Your task to perform on an android device: Go to eBay Image 0: 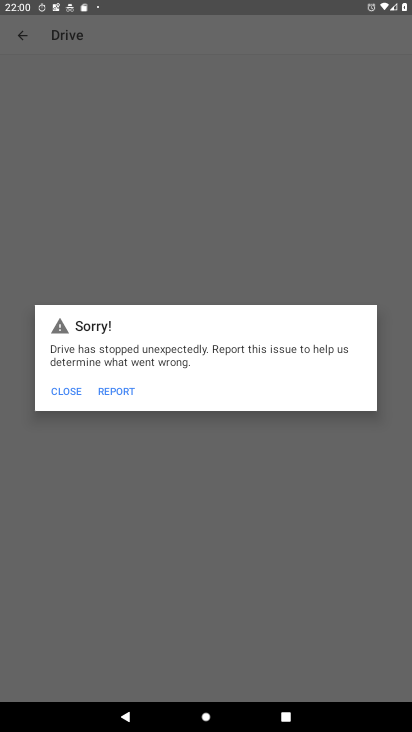
Step 0: click (73, 389)
Your task to perform on an android device: Go to eBay Image 1: 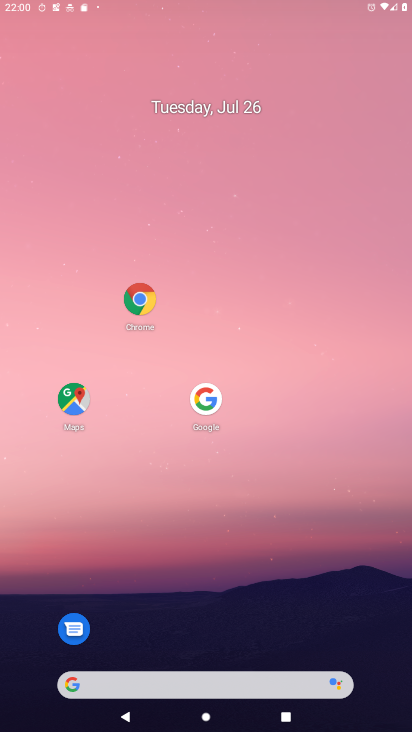
Step 1: drag from (221, 116) to (211, 42)
Your task to perform on an android device: Go to eBay Image 2: 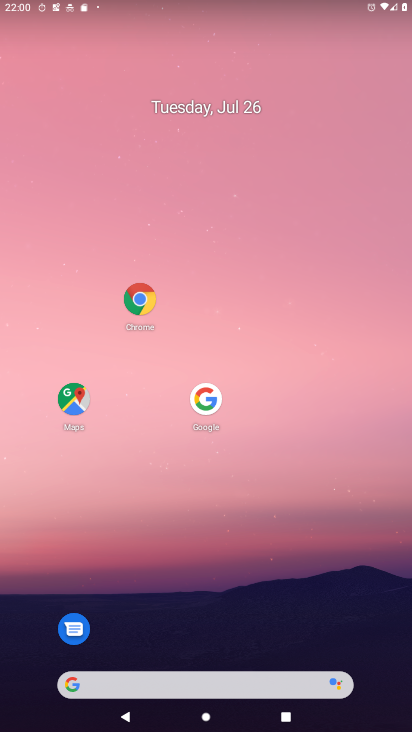
Step 2: drag from (269, 477) to (225, 73)
Your task to perform on an android device: Go to eBay Image 3: 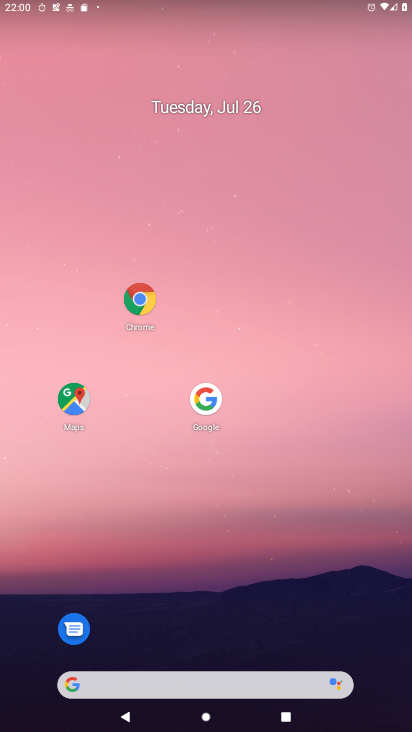
Step 3: drag from (270, 368) to (234, 35)
Your task to perform on an android device: Go to eBay Image 4: 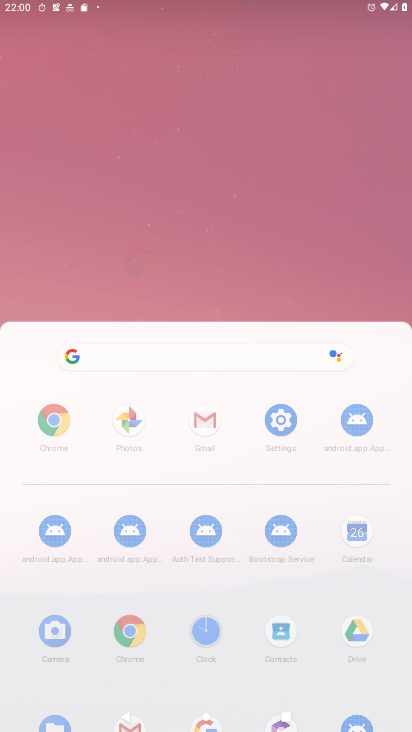
Step 4: drag from (239, 482) to (221, 124)
Your task to perform on an android device: Go to eBay Image 5: 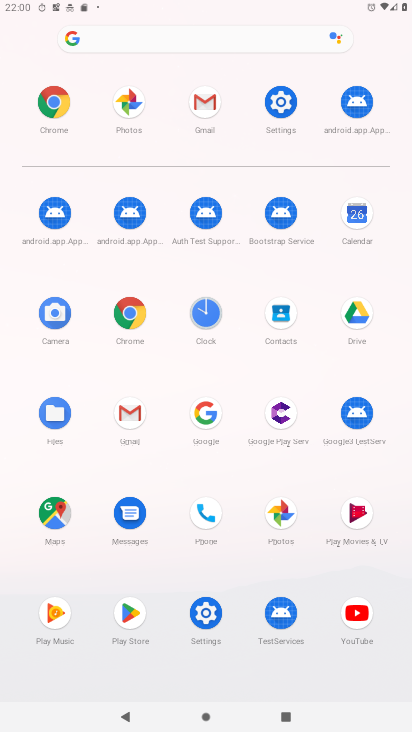
Step 5: drag from (224, 487) to (174, 61)
Your task to perform on an android device: Go to eBay Image 6: 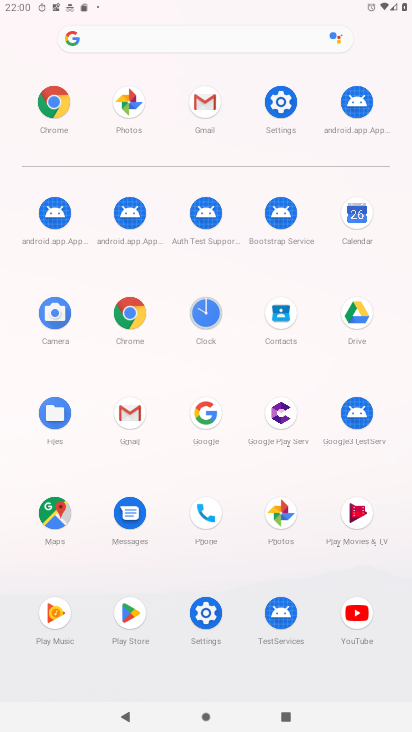
Step 6: click (221, 207)
Your task to perform on an android device: Go to eBay Image 7: 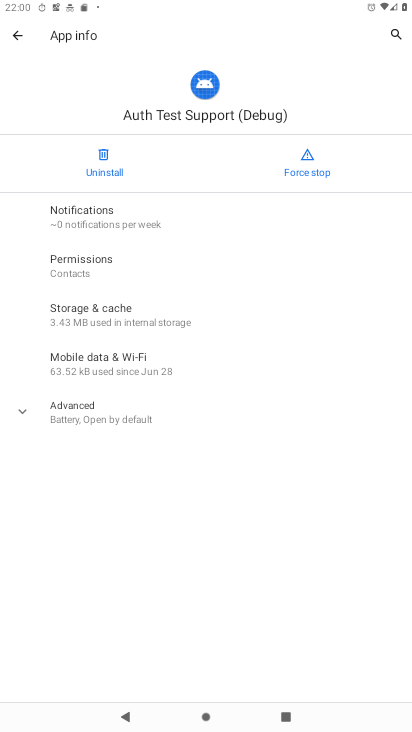
Step 7: click (16, 34)
Your task to perform on an android device: Go to eBay Image 8: 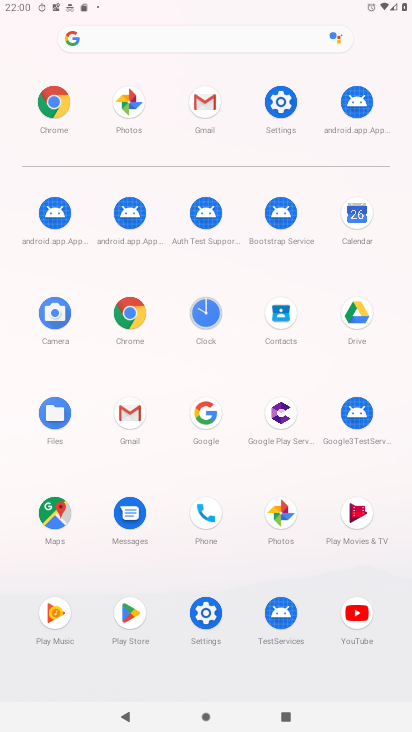
Step 8: click (59, 108)
Your task to perform on an android device: Go to eBay Image 9: 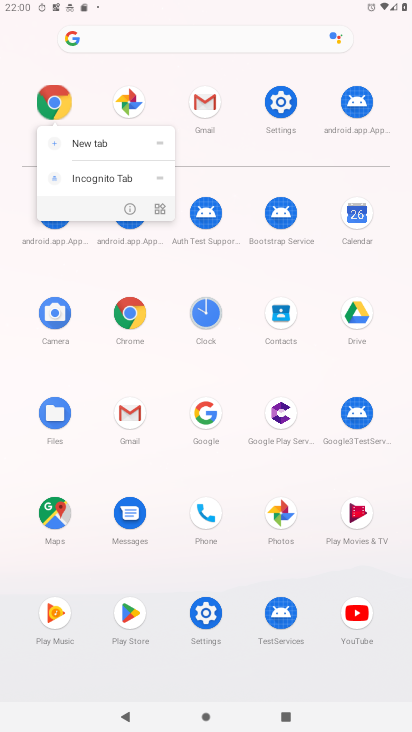
Step 9: click (59, 107)
Your task to perform on an android device: Go to eBay Image 10: 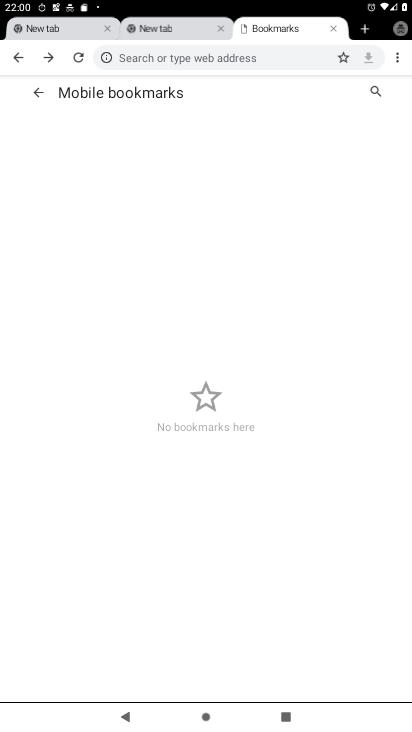
Step 10: click (29, 96)
Your task to perform on an android device: Go to eBay Image 11: 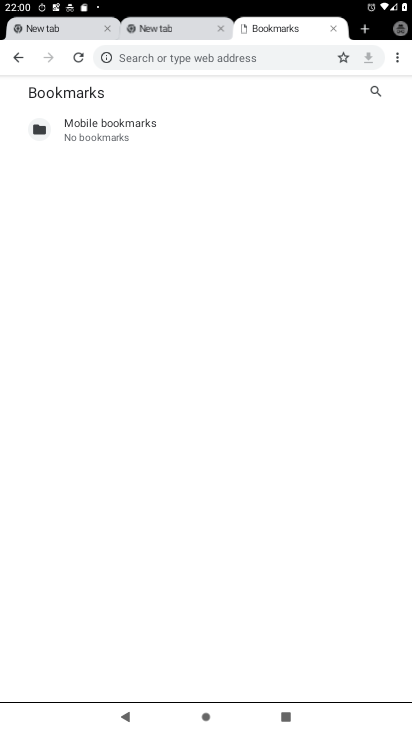
Step 11: click (15, 58)
Your task to perform on an android device: Go to eBay Image 12: 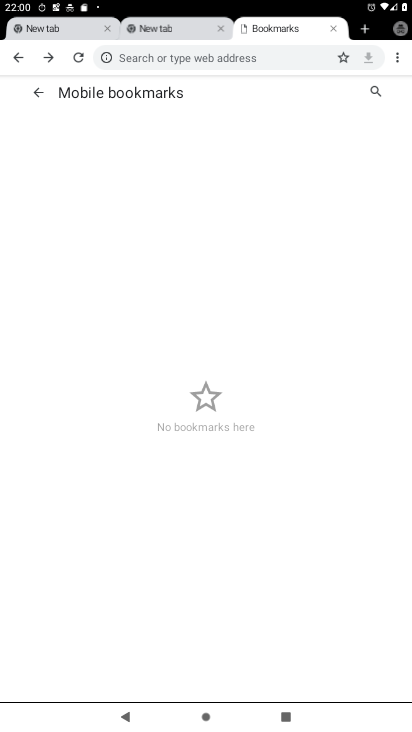
Step 12: click (15, 57)
Your task to perform on an android device: Go to eBay Image 13: 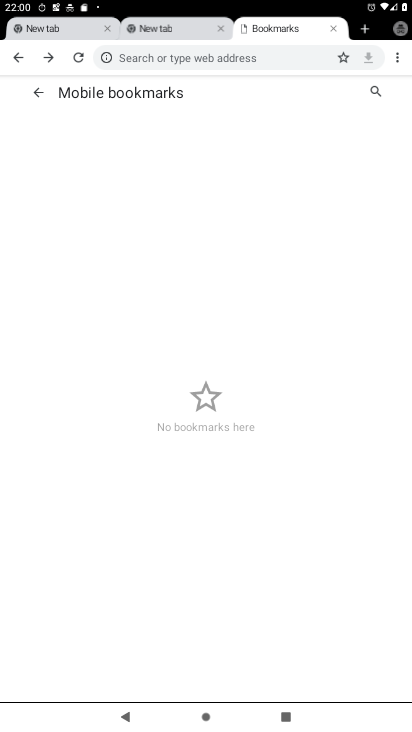
Step 13: click (21, 58)
Your task to perform on an android device: Go to eBay Image 14: 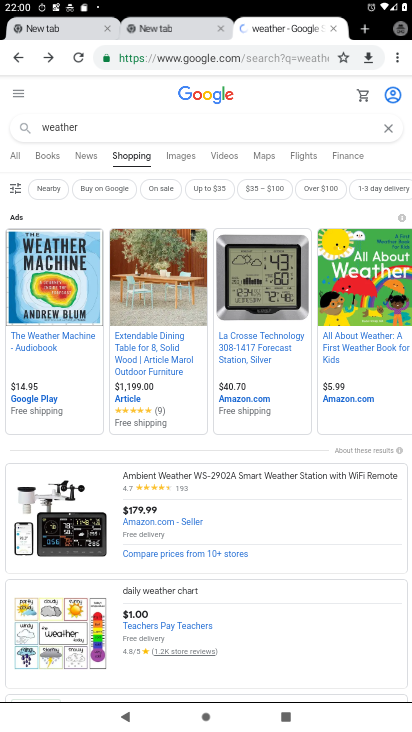
Step 14: click (187, 28)
Your task to perform on an android device: Go to eBay Image 15: 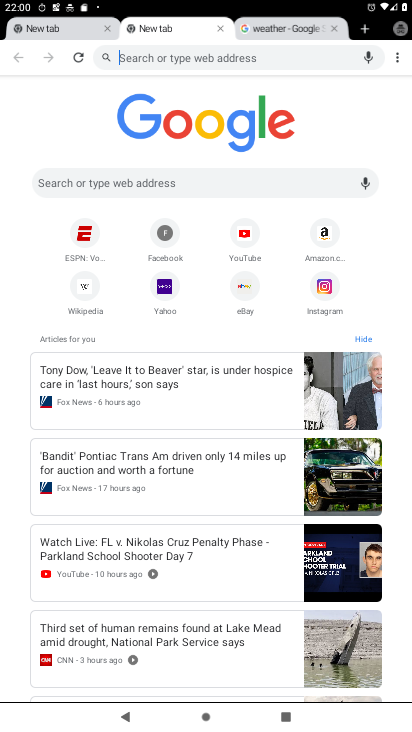
Step 15: click (246, 287)
Your task to perform on an android device: Go to eBay Image 16: 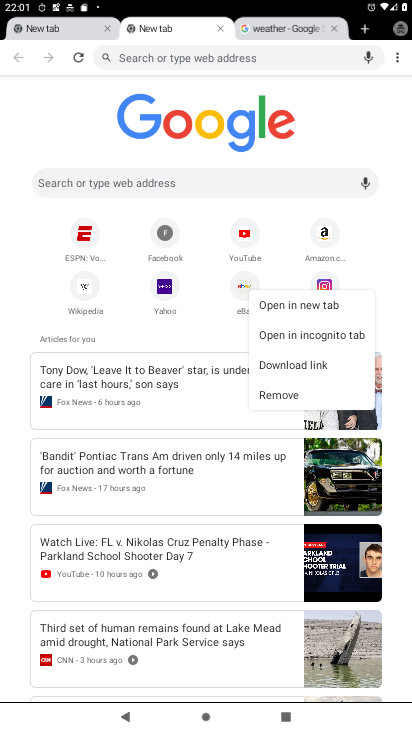
Step 16: click (242, 292)
Your task to perform on an android device: Go to eBay Image 17: 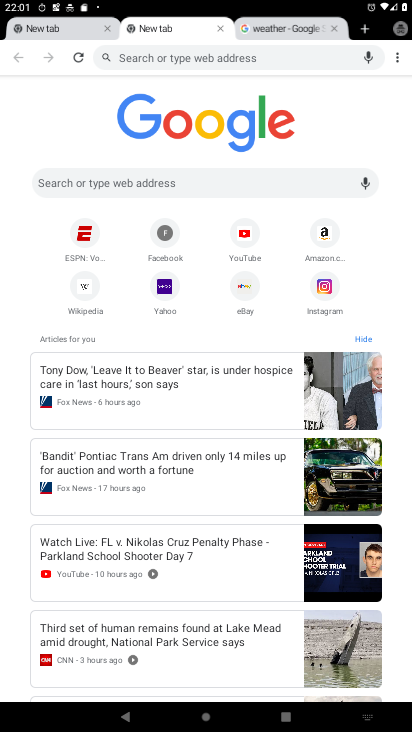
Step 17: click (239, 288)
Your task to perform on an android device: Go to eBay Image 18: 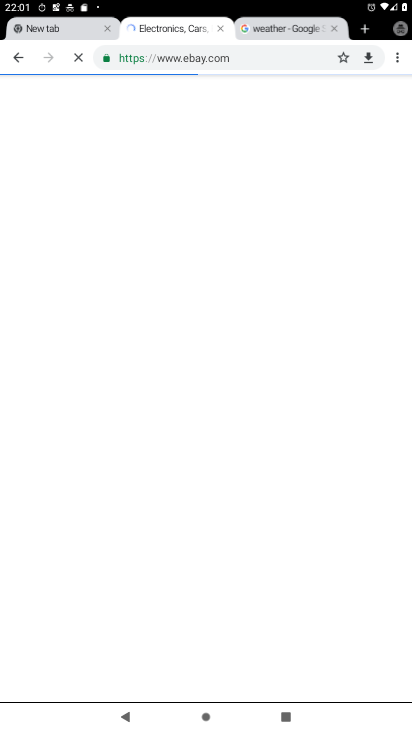
Step 18: task complete